Your task to perform on an android device: toggle javascript in the chrome app Image 0: 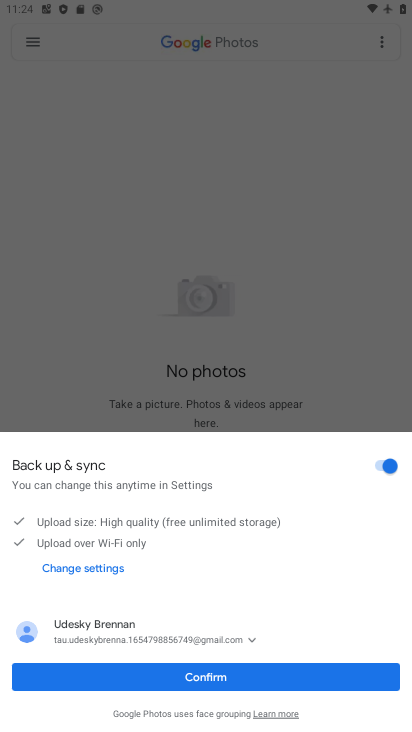
Step 0: click (202, 672)
Your task to perform on an android device: toggle javascript in the chrome app Image 1: 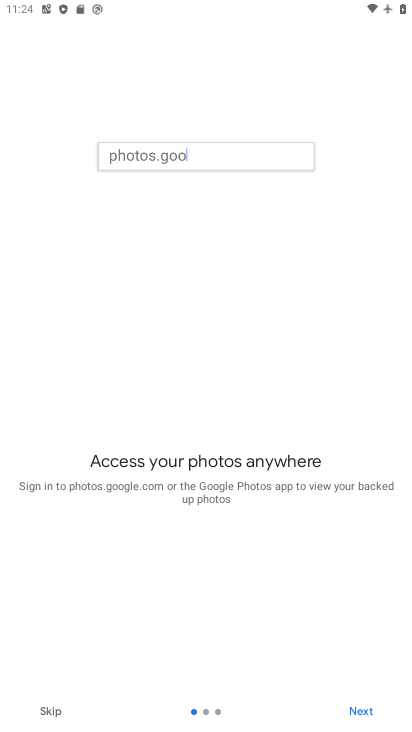
Step 1: press home button
Your task to perform on an android device: toggle javascript in the chrome app Image 2: 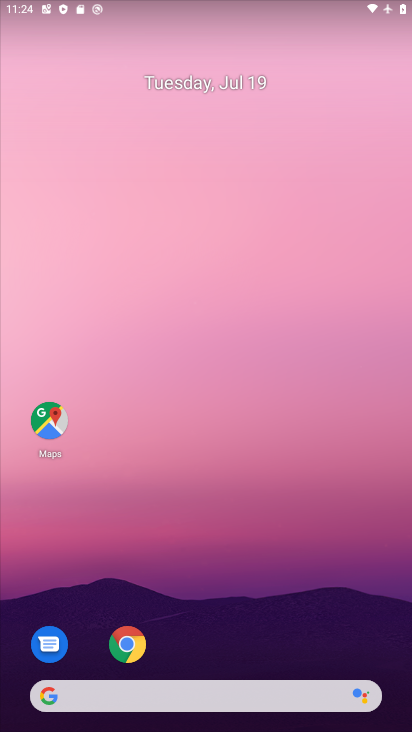
Step 2: click (144, 642)
Your task to perform on an android device: toggle javascript in the chrome app Image 3: 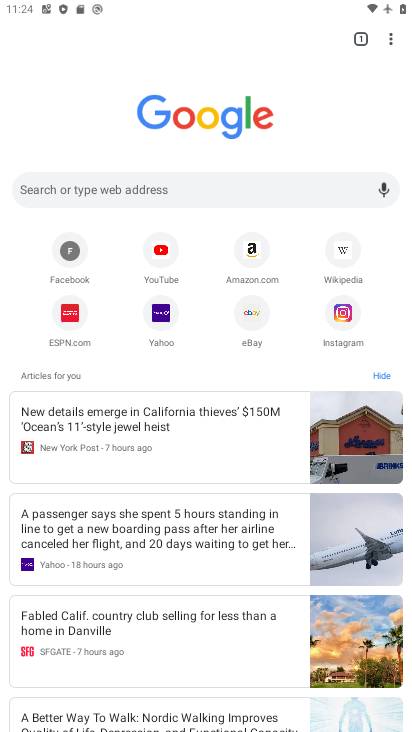
Step 3: click (393, 43)
Your task to perform on an android device: toggle javascript in the chrome app Image 4: 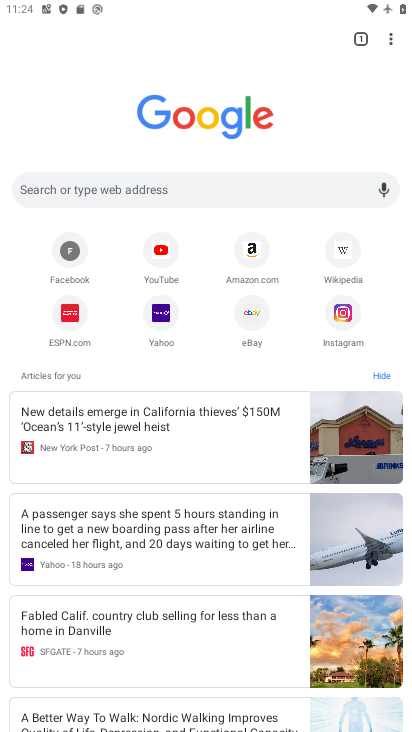
Step 4: click (390, 40)
Your task to perform on an android device: toggle javascript in the chrome app Image 5: 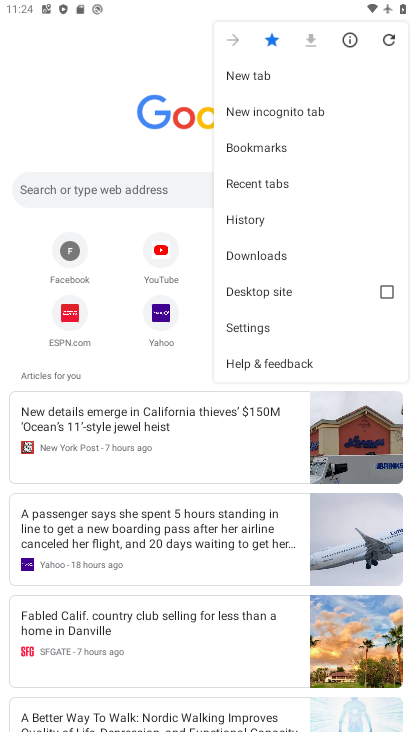
Step 5: click (273, 328)
Your task to perform on an android device: toggle javascript in the chrome app Image 6: 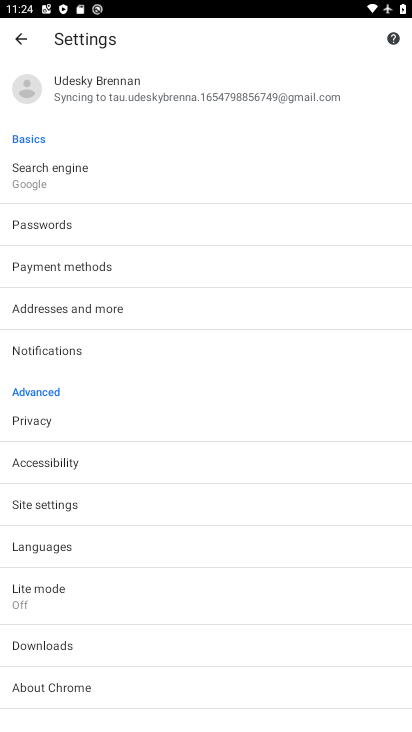
Step 6: click (37, 509)
Your task to perform on an android device: toggle javascript in the chrome app Image 7: 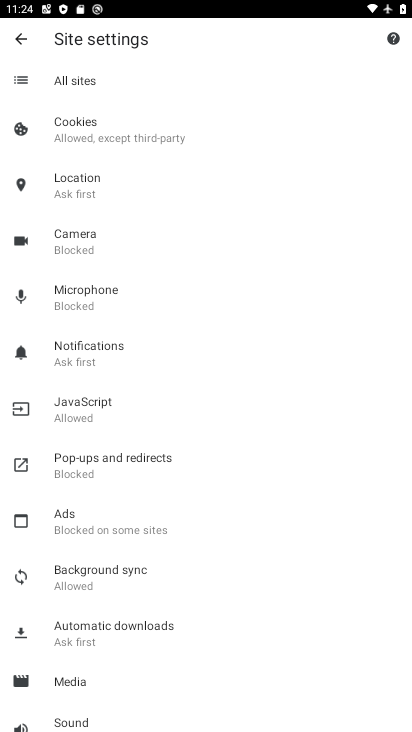
Step 7: click (83, 408)
Your task to perform on an android device: toggle javascript in the chrome app Image 8: 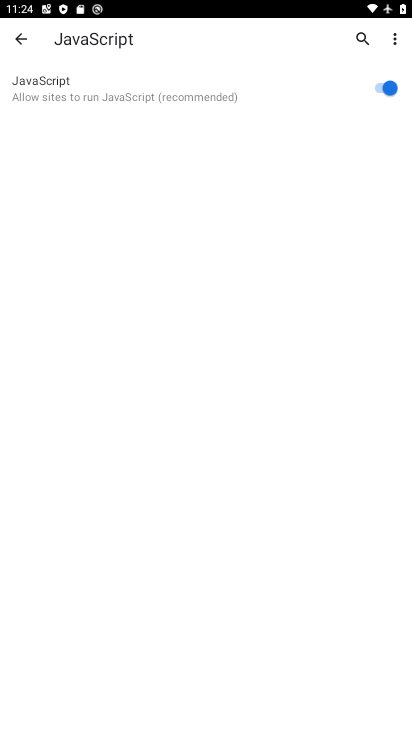
Step 8: task complete